Your task to perform on an android device: uninstall "Airtel Thanks" Image 0: 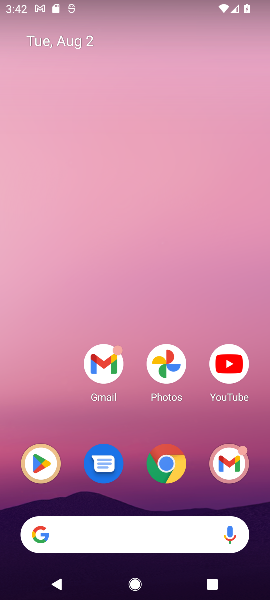
Step 0: click (36, 466)
Your task to perform on an android device: uninstall "Airtel Thanks" Image 1: 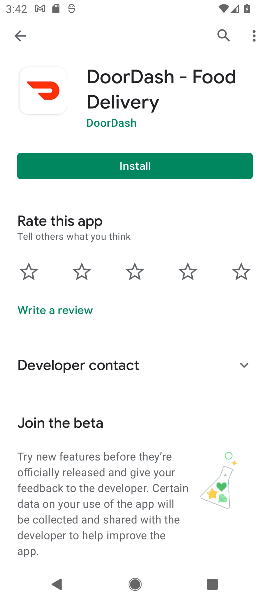
Step 1: click (221, 29)
Your task to perform on an android device: uninstall "Airtel Thanks" Image 2: 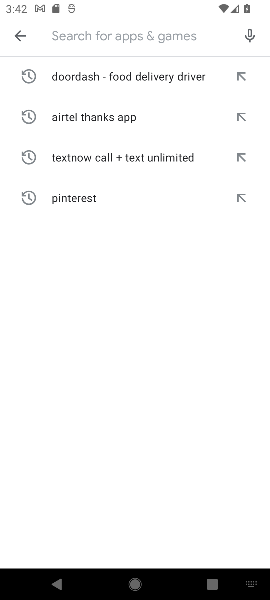
Step 2: type "Airtel Thanks"
Your task to perform on an android device: uninstall "Airtel Thanks" Image 3: 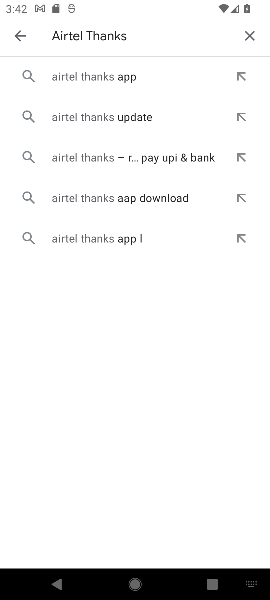
Step 3: click (88, 77)
Your task to perform on an android device: uninstall "Airtel Thanks" Image 4: 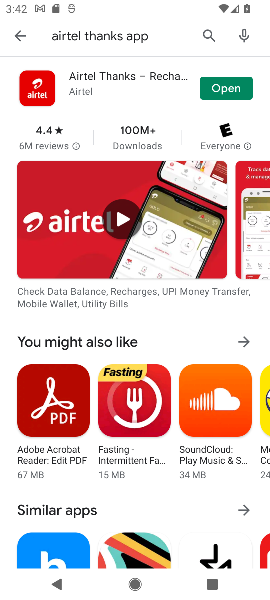
Step 4: click (70, 81)
Your task to perform on an android device: uninstall "Airtel Thanks" Image 5: 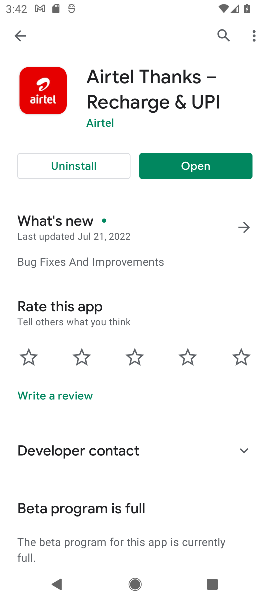
Step 5: click (91, 166)
Your task to perform on an android device: uninstall "Airtel Thanks" Image 6: 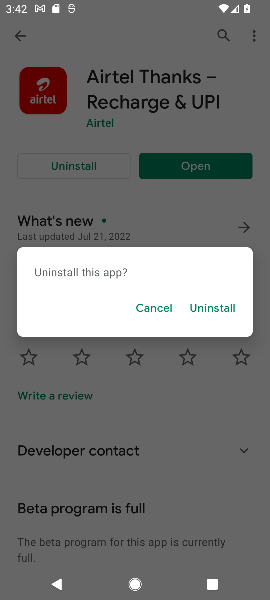
Step 6: click (206, 312)
Your task to perform on an android device: uninstall "Airtel Thanks" Image 7: 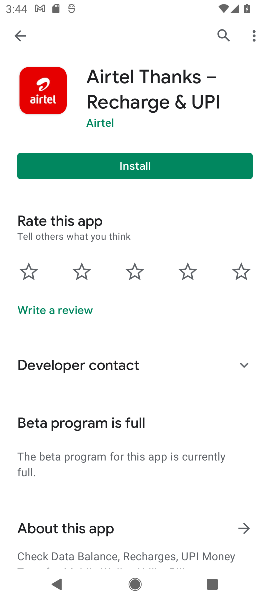
Step 7: task complete